Your task to perform on an android device: delete the emails in spam in the gmail app Image 0: 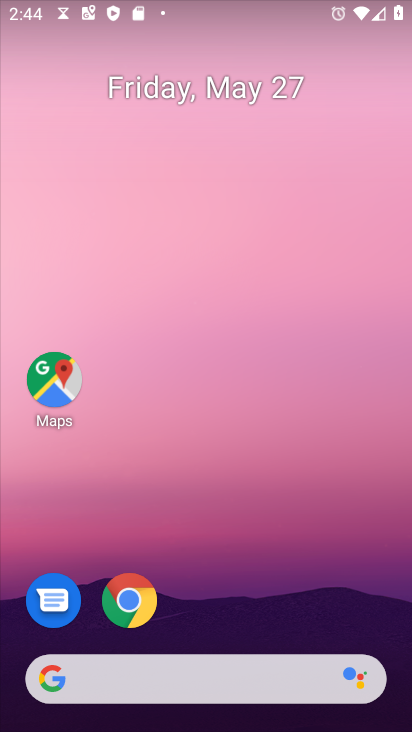
Step 0: drag from (204, 562) to (134, 51)
Your task to perform on an android device: delete the emails in spam in the gmail app Image 1: 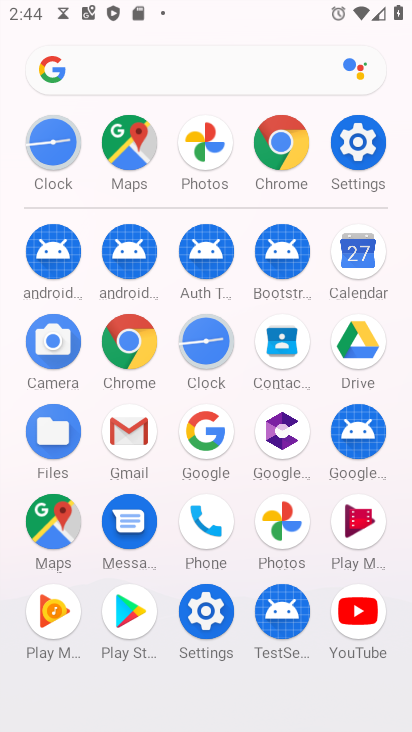
Step 1: drag from (2, 536) to (3, 241)
Your task to perform on an android device: delete the emails in spam in the gmail app Image 2: 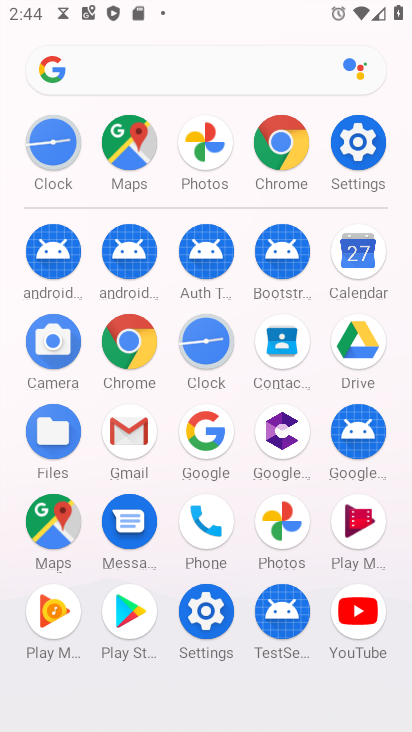
Step 2: click (125, 424)
Your task to perform on an android device: delete the emails in spam in the gmail app Image 3: 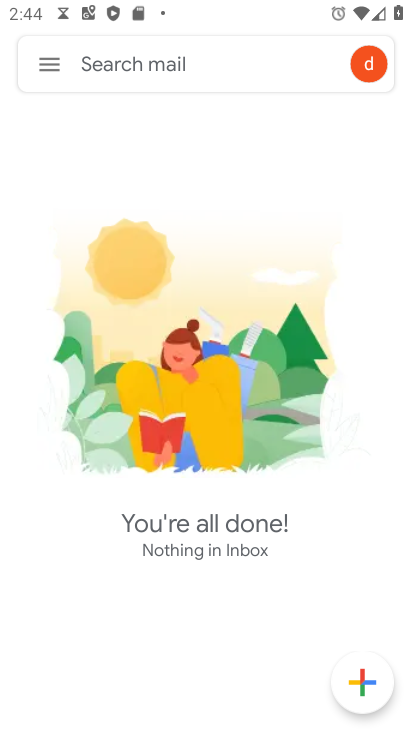
Step 3: click (36, 64)
Your task to perform on an android device: delete the emails in spam in the gmail app Image 4: 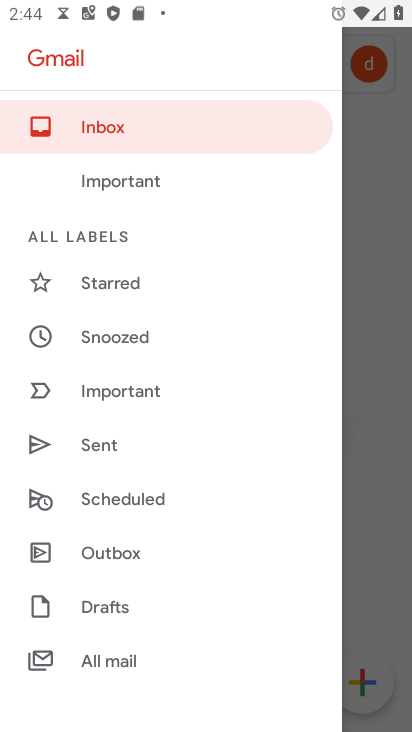
Step 4: drag from (177, 536) to (190, 160)
Your task to perform on an android device: delete the emails in spam in the gmail app Image 5: 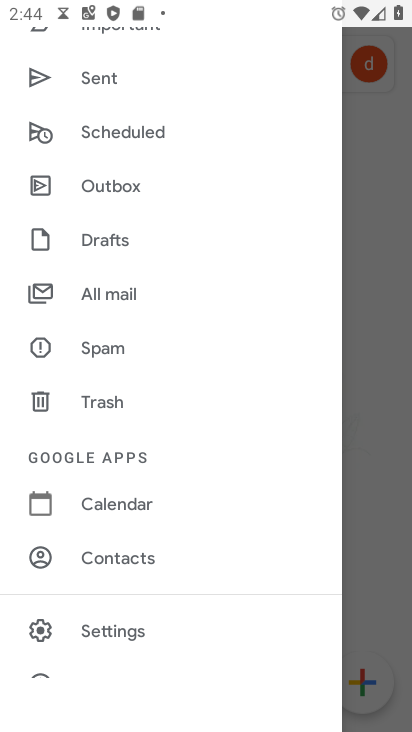
Step 5: click (98, 352)
Your task to perform on an android device: delete the emails in spam in the gmail app Image 6: 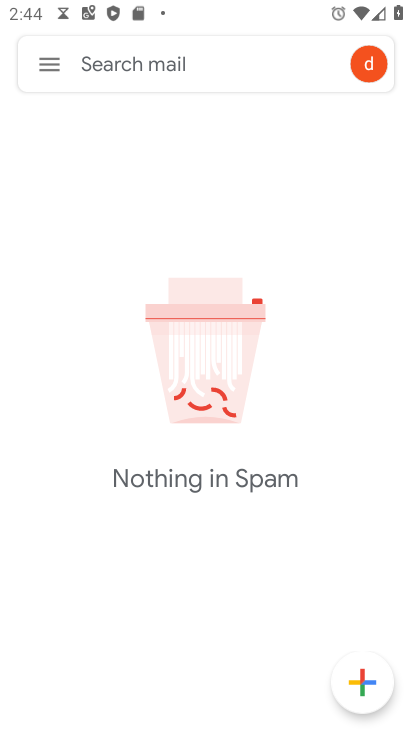
Step 6: click (48, 73)
Your task to perform on an android device: delete the emails in spam in the gmail app Image 7: 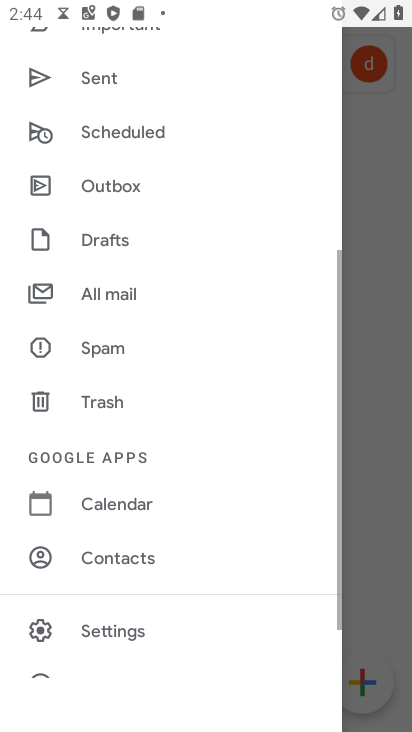
Step 7: click (384, 332)
Your task to perform on an android device: delete the emails in spam in the gmail app Image 8: 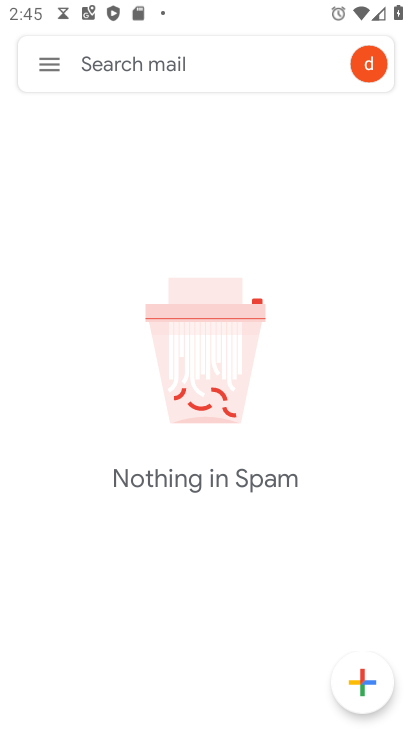
Step 8: task complete